Your task to perform on an android device: turn on airplane mode Image 0: 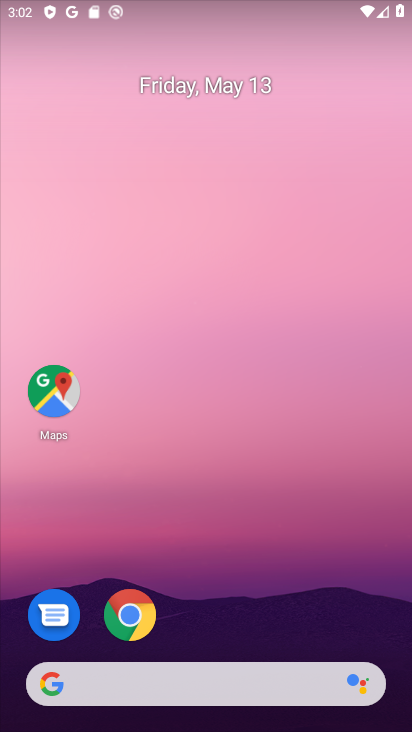
Step 0: drag from (191, 695) to (349, 141)
Your task to perform on an android device: turn on airplane mode Image 1: 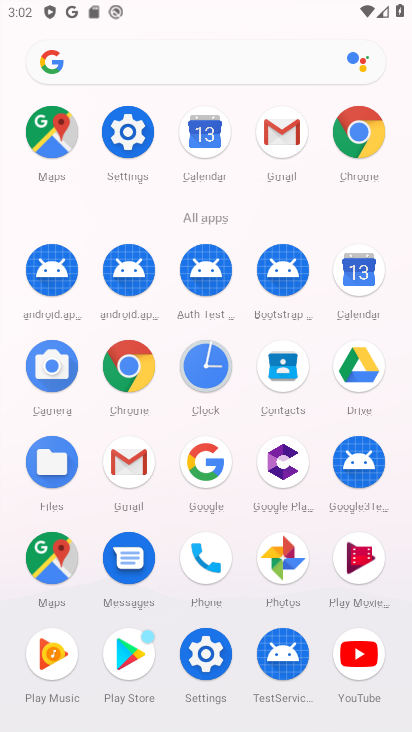
Step 1: click (135, 138)
Your task to perform on an android device: turn on airplane mode Image 2: 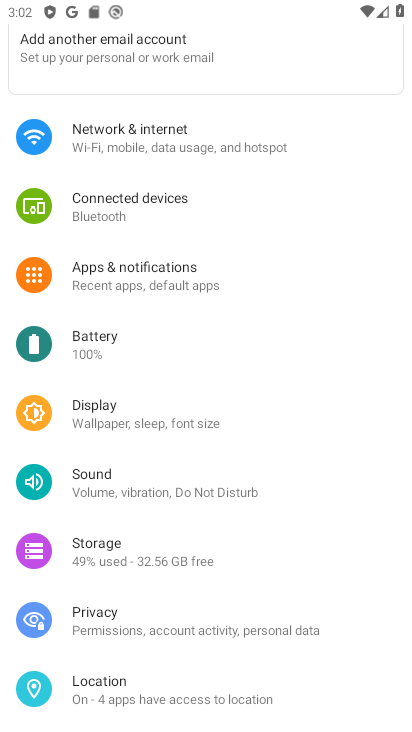
Step 2: click (135, 138)
Your task to perform on an android device: turn on airplane mode Image 3: 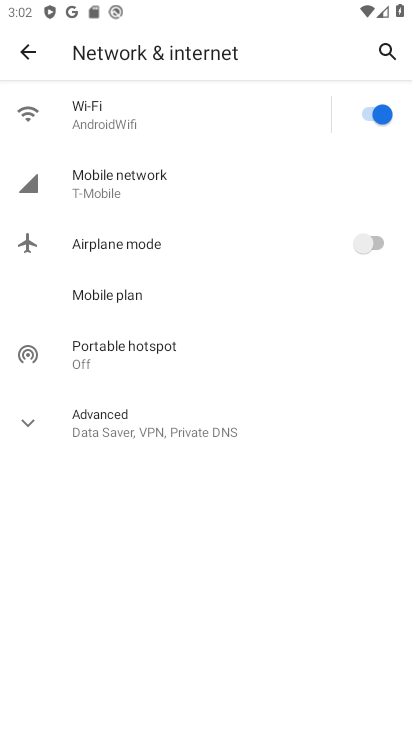
Step 3: click (377, 243)
Your task to perform on an android device: turn on airplane mode Image 4: 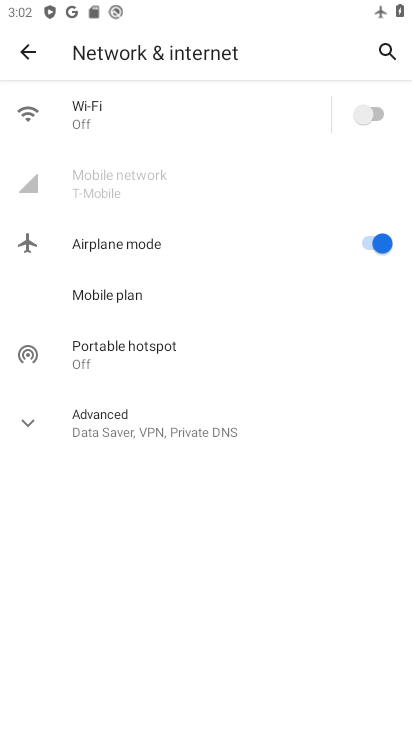
Step 4: task complete